Your task to perform on an android device: Empty the shopping cart on newegg.com. Search for "duracell triple a" on newegg.com, select the first entry, and add it to the cart. Image 0: 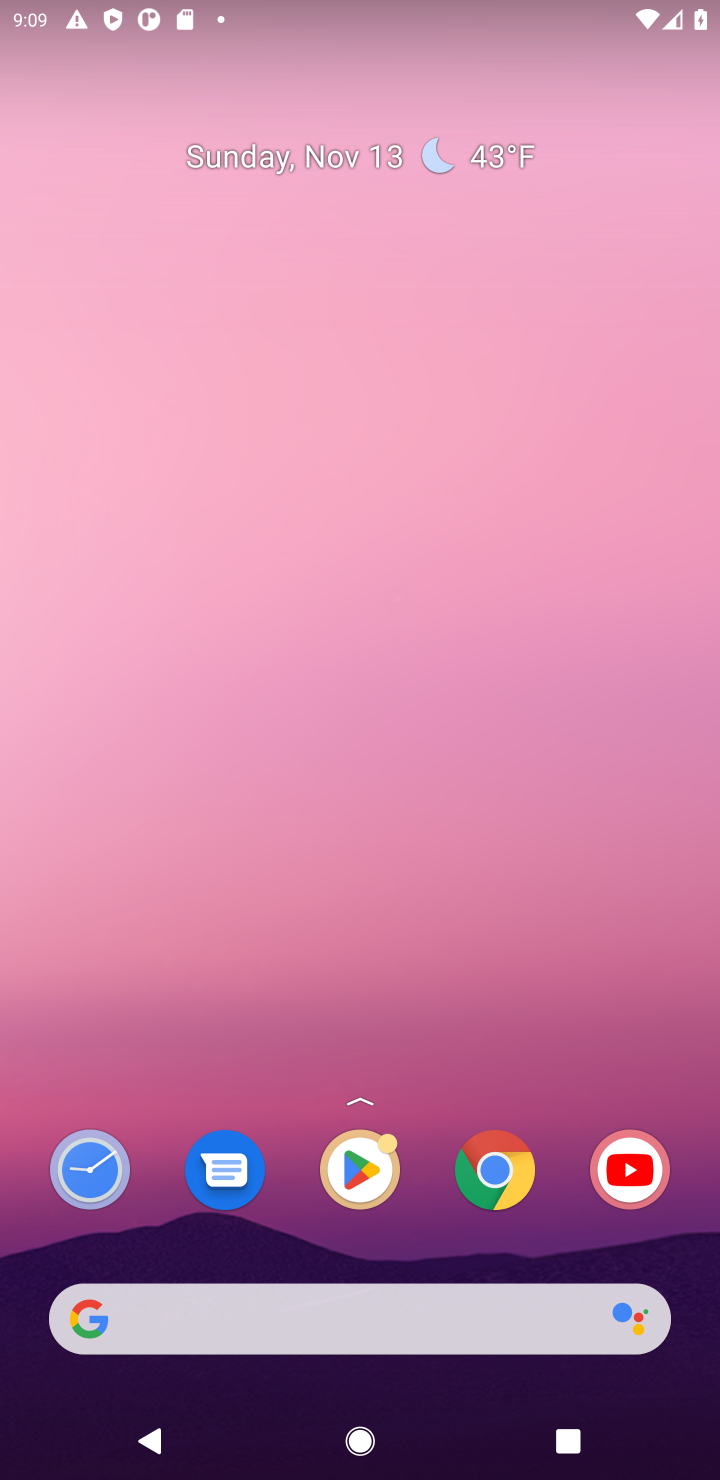
Step 0: drag from (379, 738) to (366, 311)
Your task to perform on an android device: Empty the shopping cart on newegg.com. Search for "duracell triple a" on newegg.com, select the first entry, and add it to the cart. Image 1: 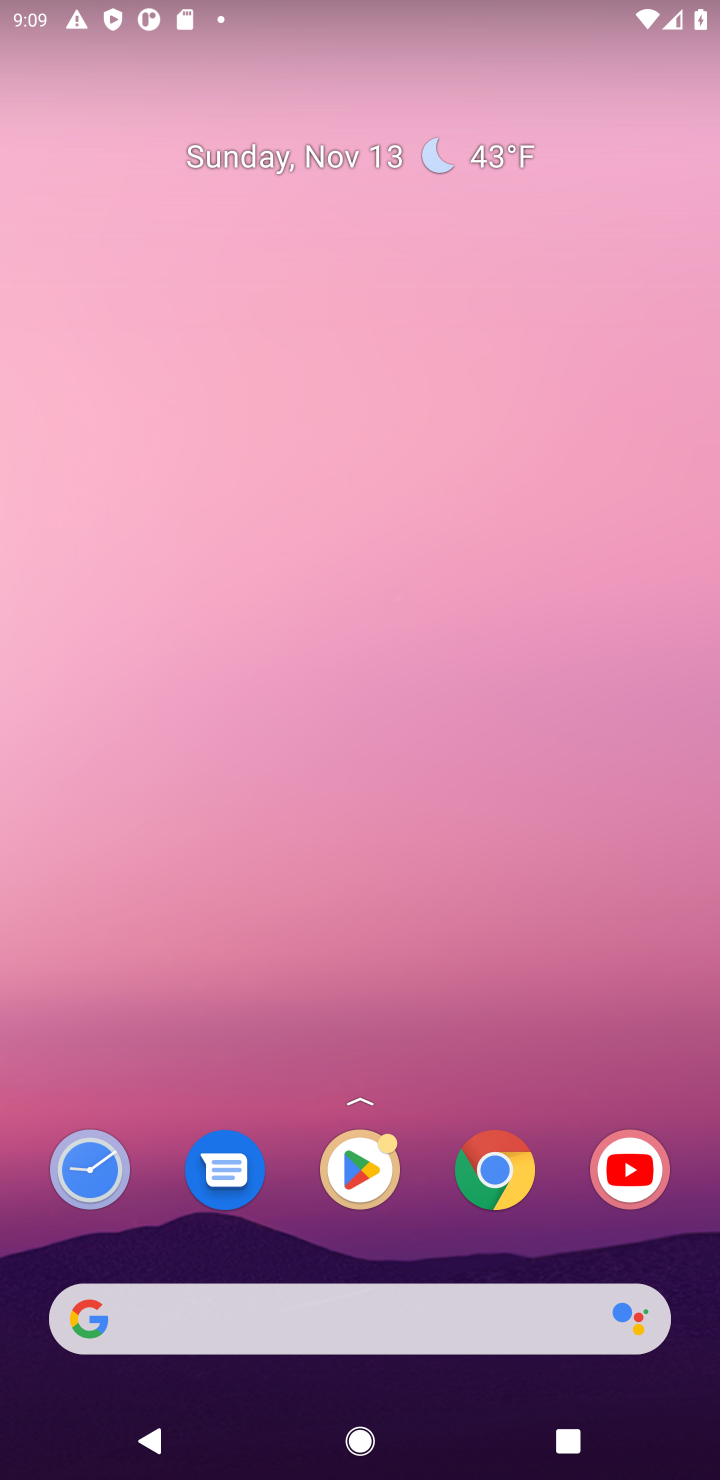
Step 1: drag from (503, 1046) to (636, 255)
Your task to perform on an android device: Empty the shopping cart on newegg.com. Search for "duracell triple a" on newegg.com, select the first entry, and add it to the cart. Image 2: 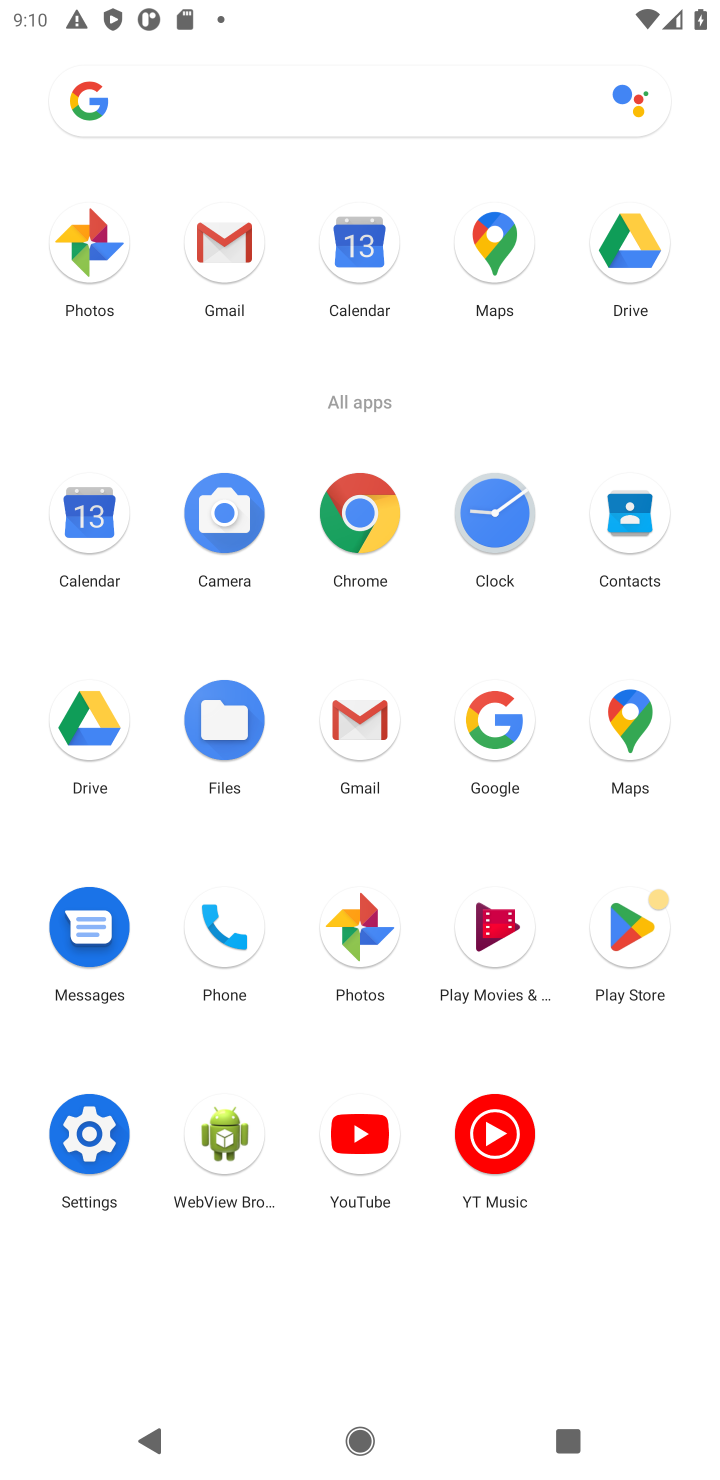
Step 2: click (368, 559)
Your task to perform on an android device: Empty the shopping cart on newegg.com. Search for "duracell triple a" on newegg.com, select the first entry, and add it to the cart. Image 3: 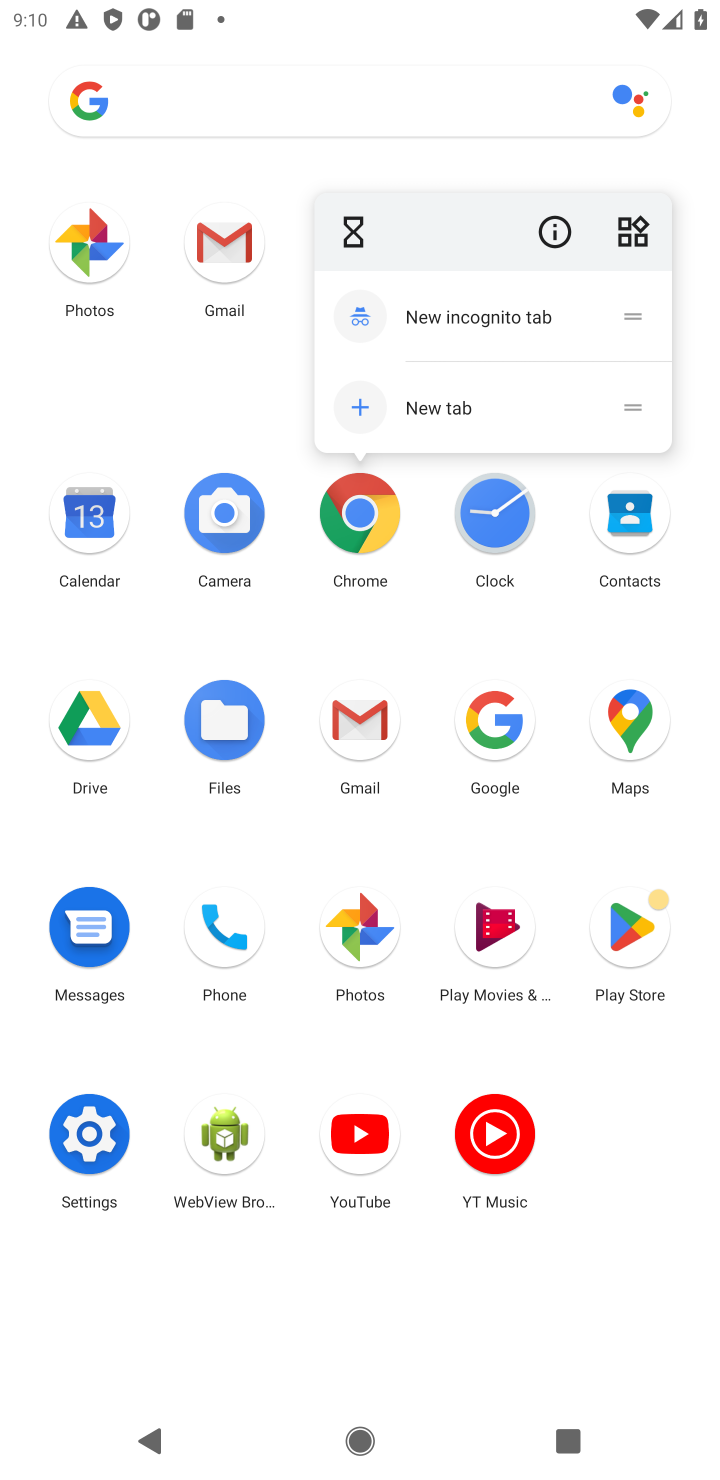
Step 3: click (371, 539)
Your task to perform on an android device: Empty the shopping cart on newegg.com. Search for "duracell triple a" on newegg.com, select the first entry, and add it to the cart. Image 4: 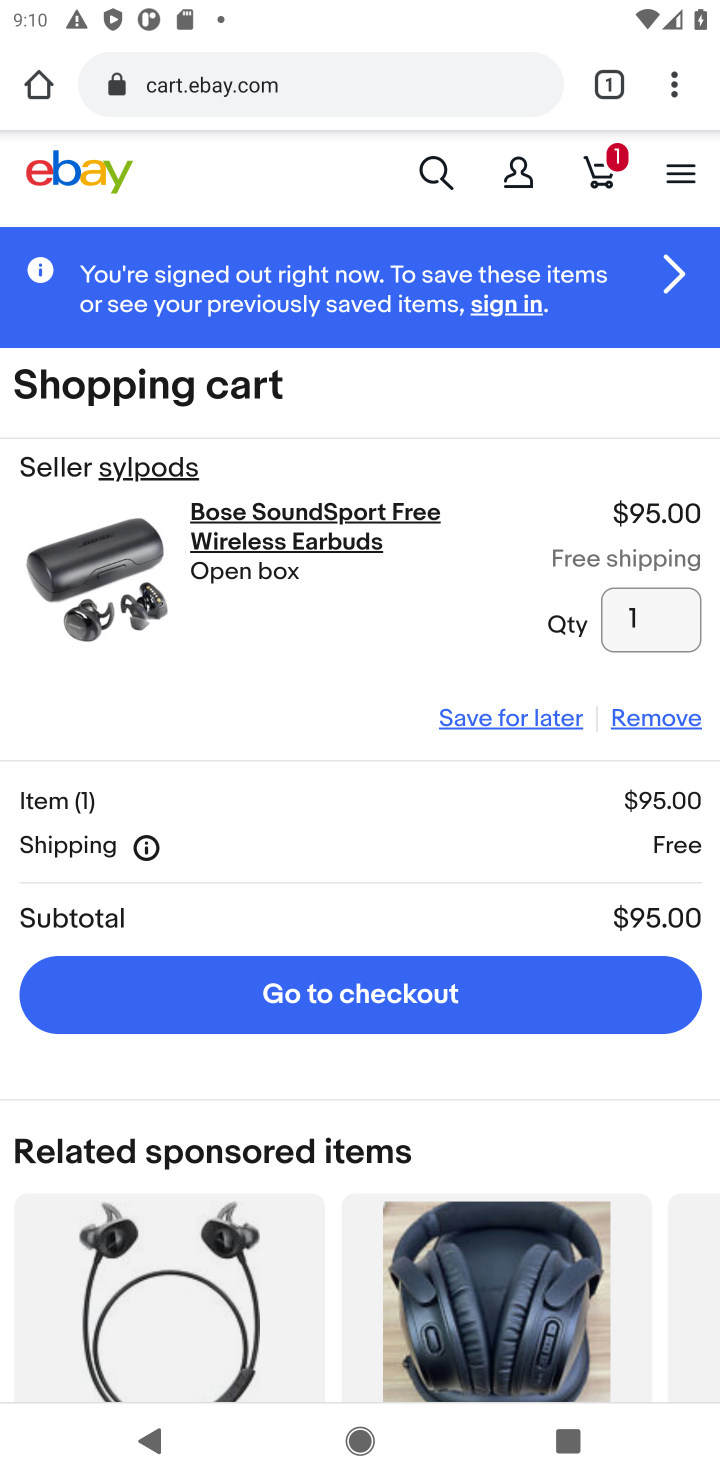
Step 4: click (364, 111)
Your task to perform on an android device: Empty the shopping cart on newegg.com. Search for "duracell triple a" on newegg.com, select the first entry, and add it to the cart. Image 5: 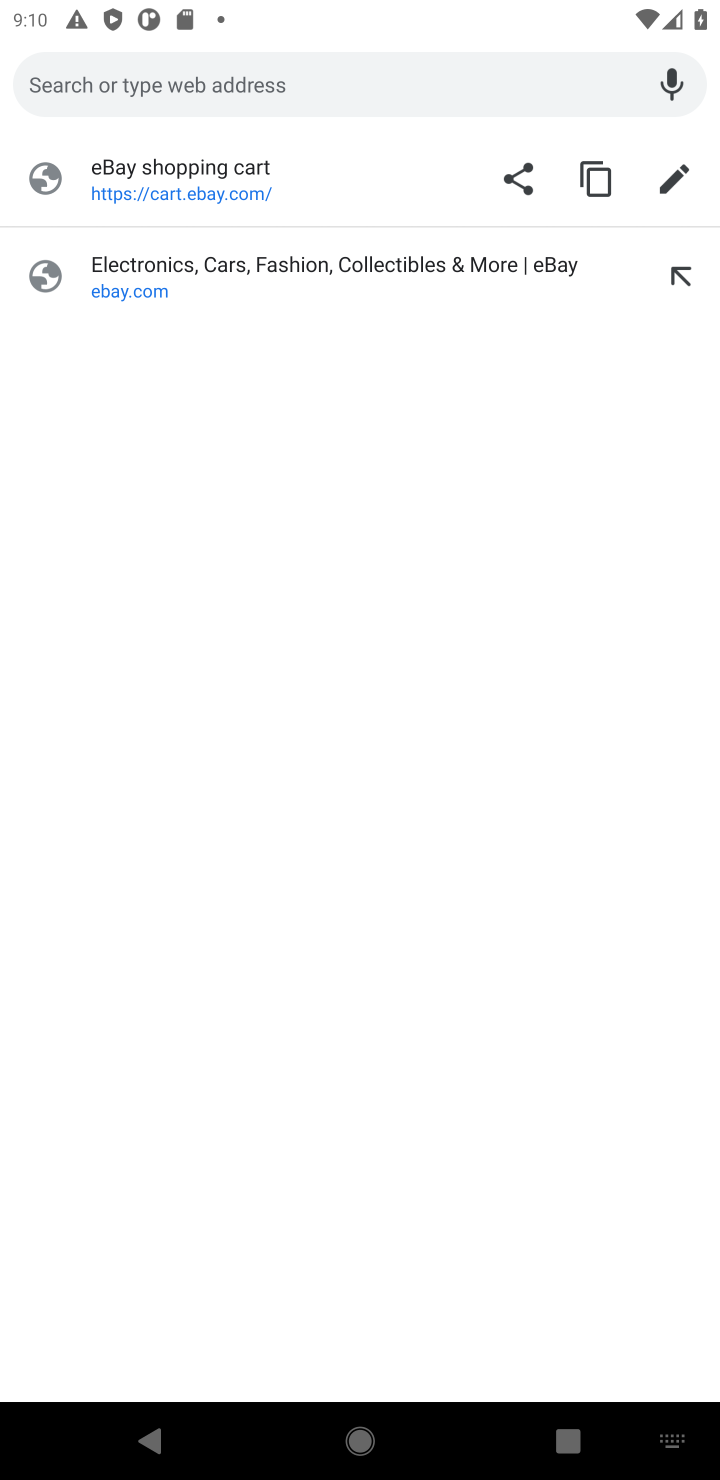
Step 5: type "newegg.com"
Your task to perform on an android device: Empty the shopping cart on newegg.com. Search for "duracell triple a" on newegg.com, select the first entry, and add it to the cart. Image 6: 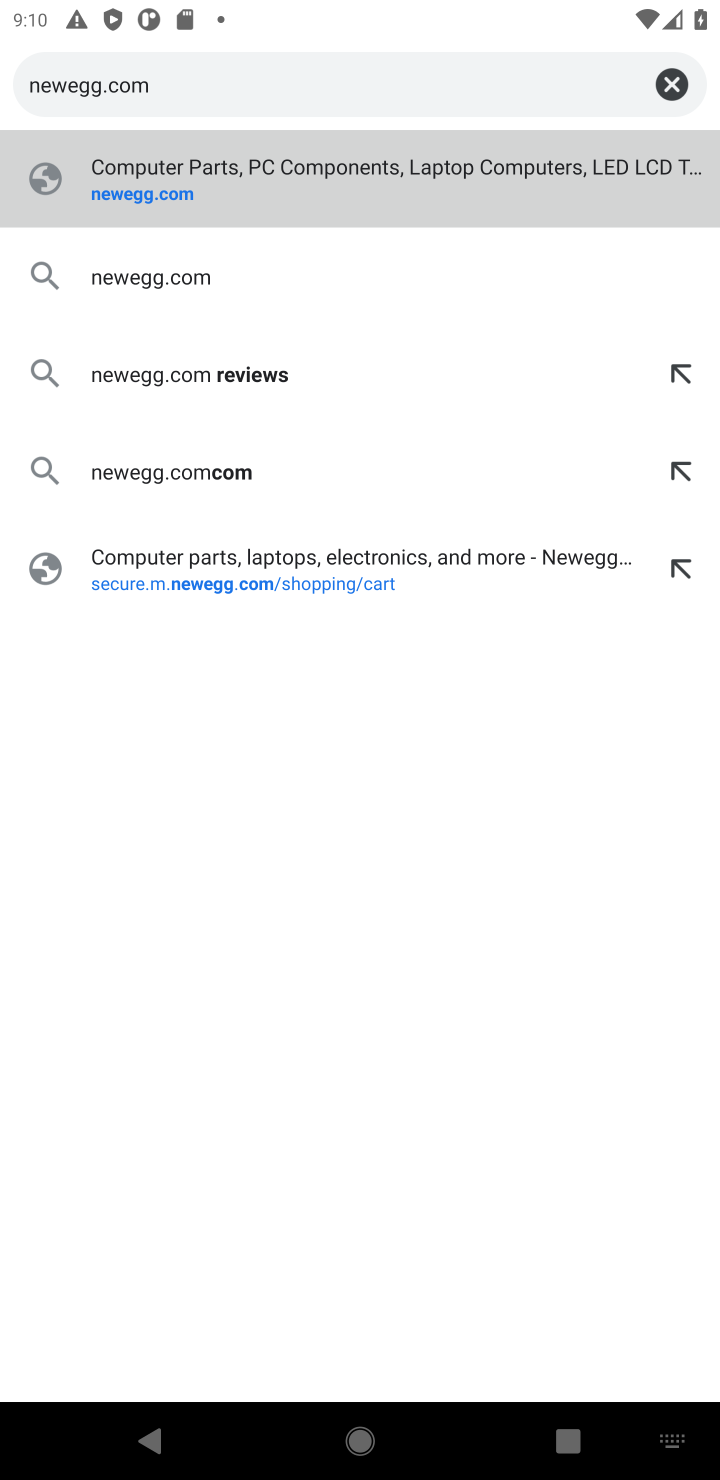
Step 6: press enter
Your task to perform on an android device: Empty the shopping cart on newegg.com. Search for "duracell triple a" on newegg.com, select the first entry, and add it to the cart. Image 7: 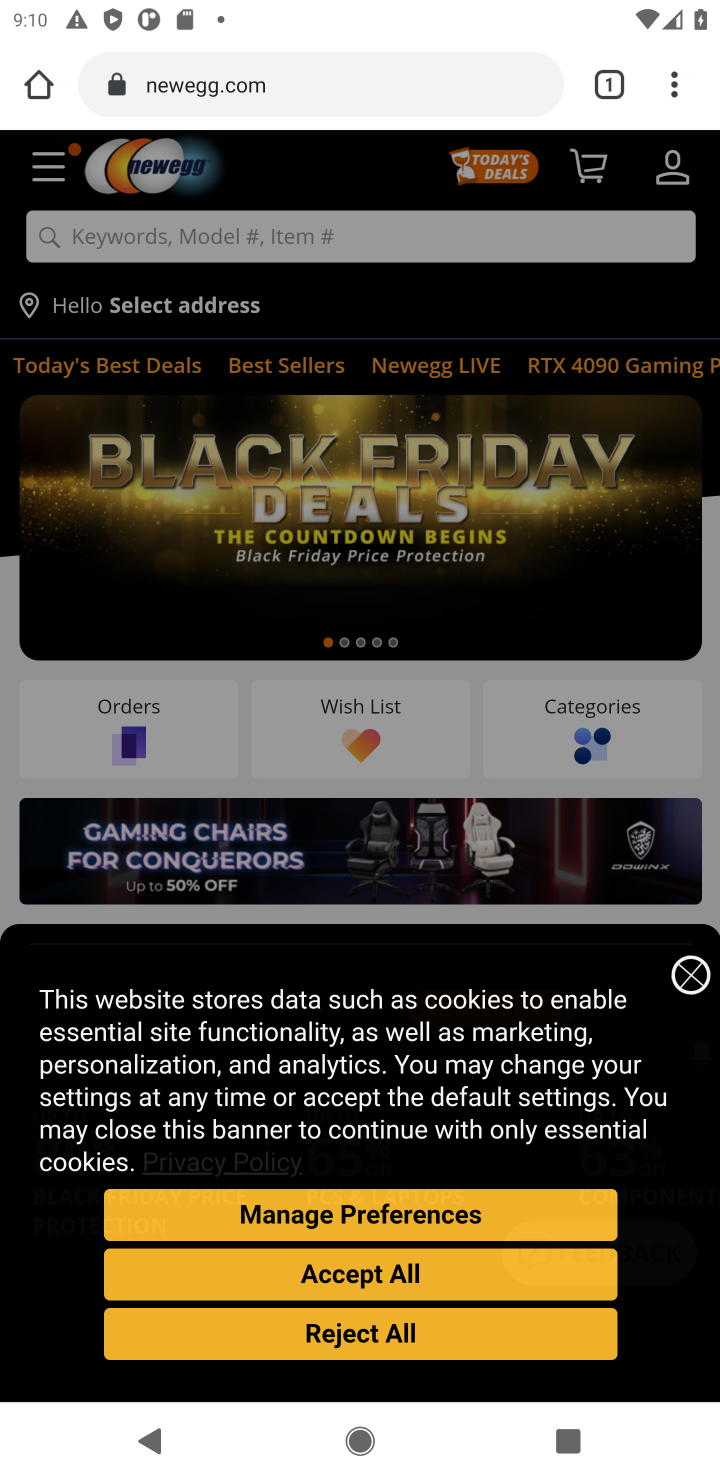
Step 7: click (148, 225)
Your task to perform on an android device: Empty the shopping cart on newegg.com. Search for "duracell triple a" on newegg.com, select the first entry, and add it to the cart. Image 8: 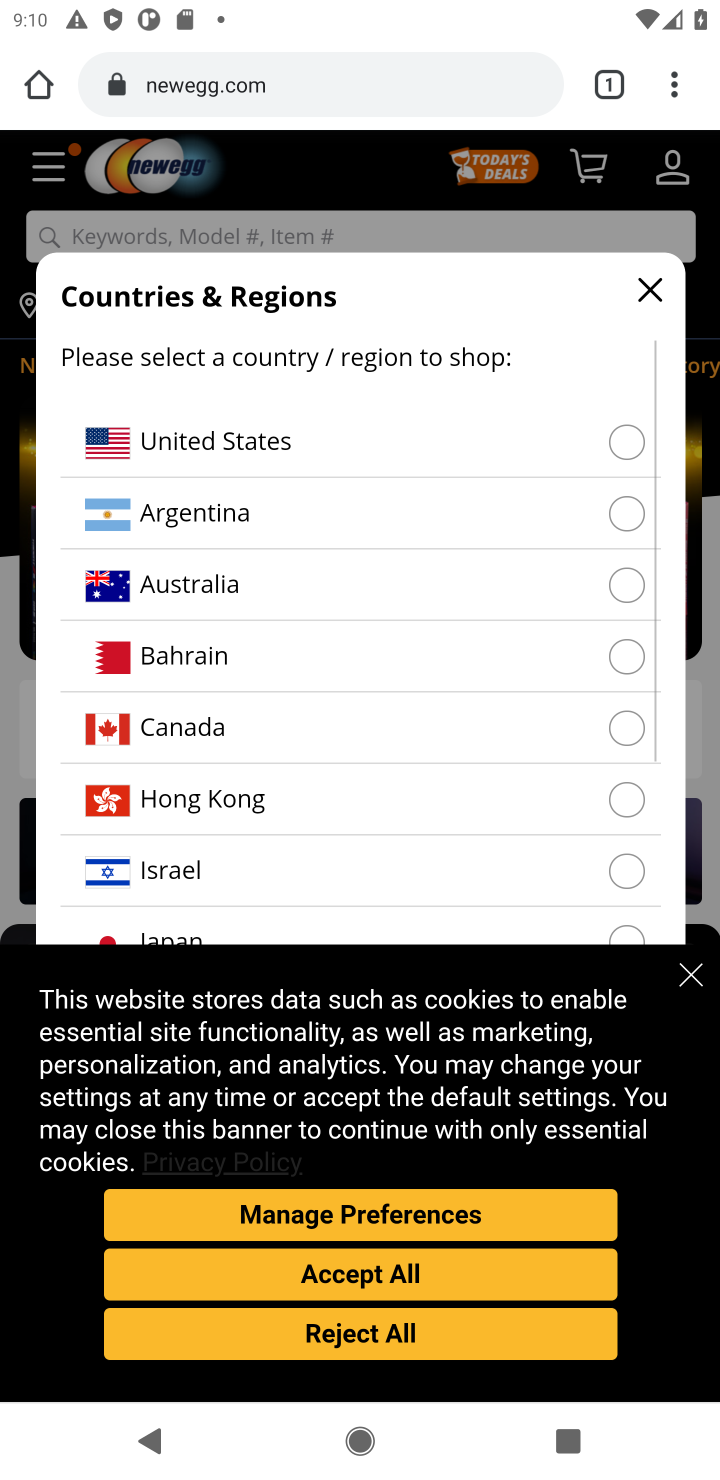
Step 8: type "duracell triple a"
Your task to perform on an android device: Empty the shopping cart on newegg.com. Search for "duracell triple a" on newegg.com, select the first entry, and add it to the cart. Image 9: 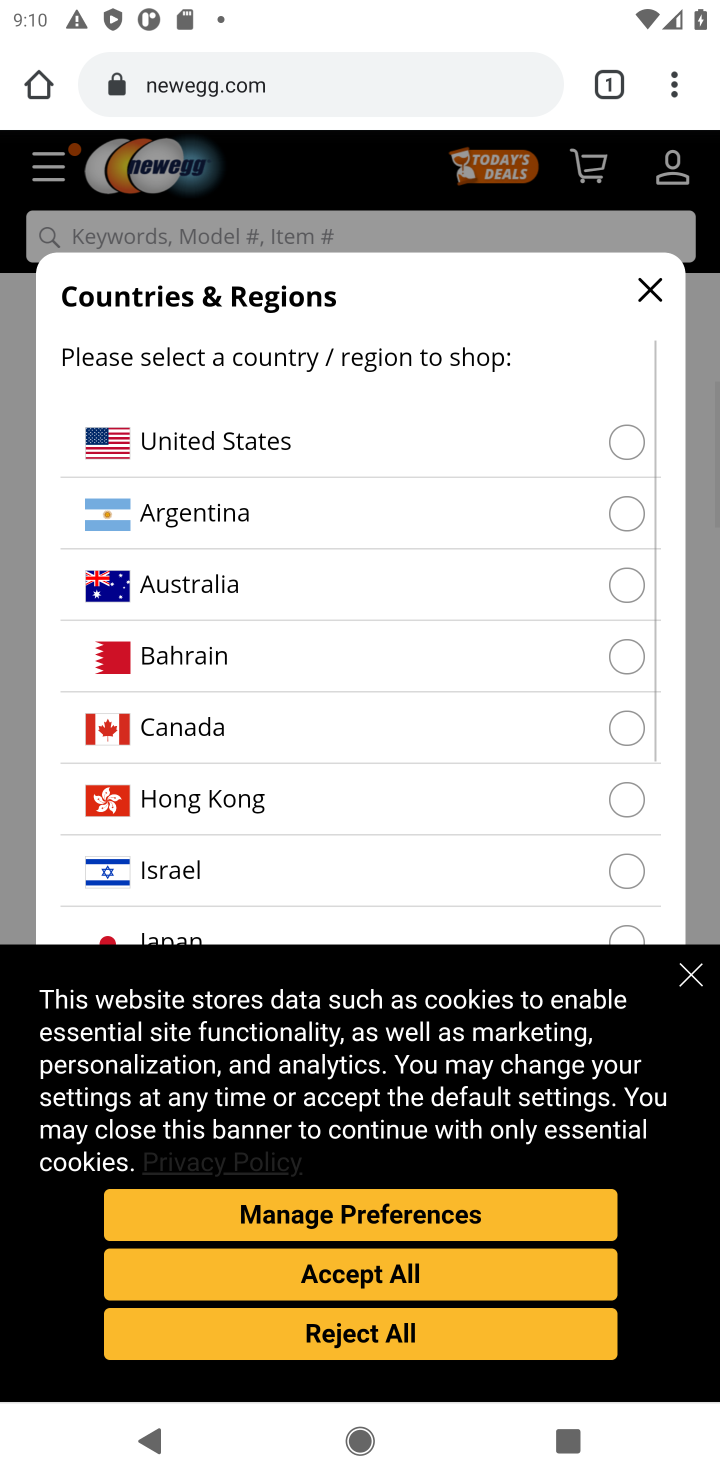
Step 9: press enter
Your task to perform on an android device: Empty the shopping cart on newegg.com. Search for "duracell triple a" on newegg.com, select the first entry, and add it to the cart. Image 10: 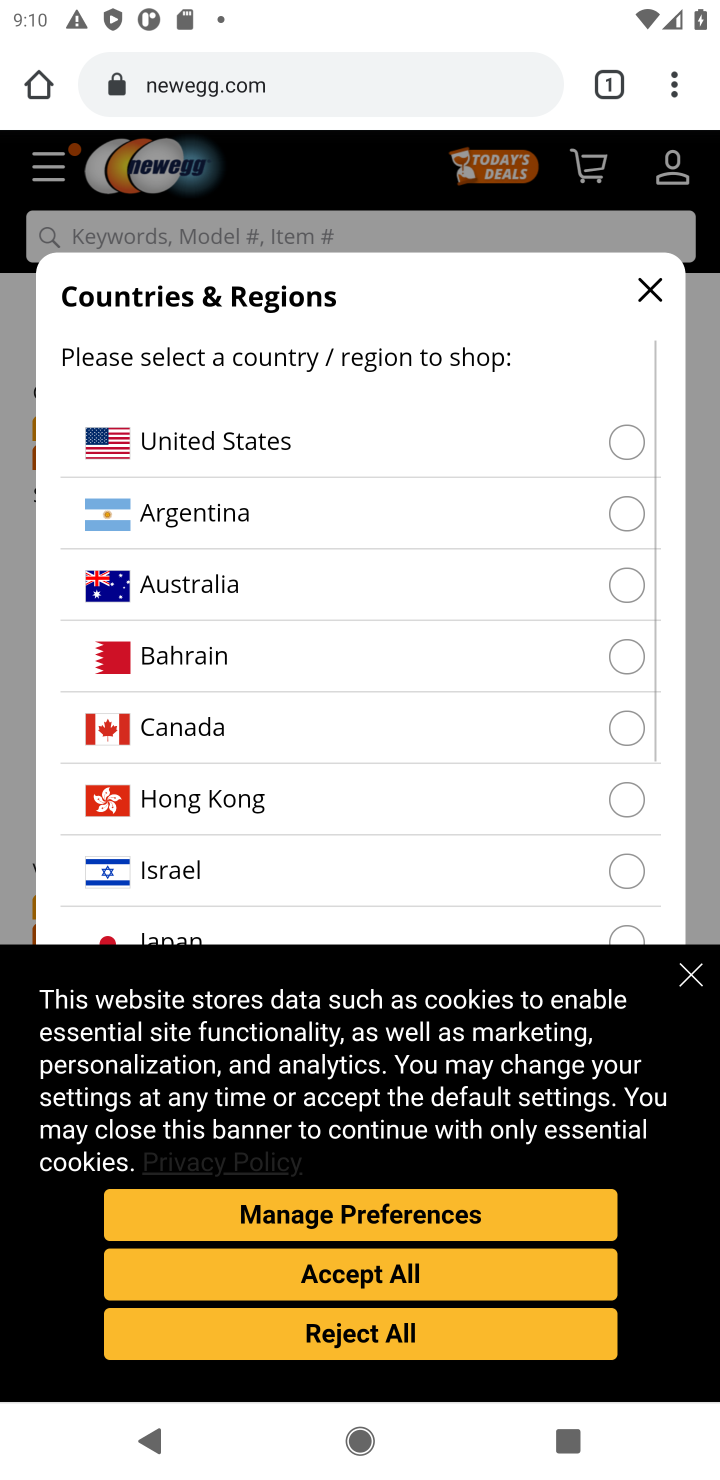
Step 10: click (343, 1276)
Your task to perform on an android device: Empty the shopping cart on newegg.com. Search for "duracell triple a" on newegg.com, select the first entry, and add it to the cart. Image 11: 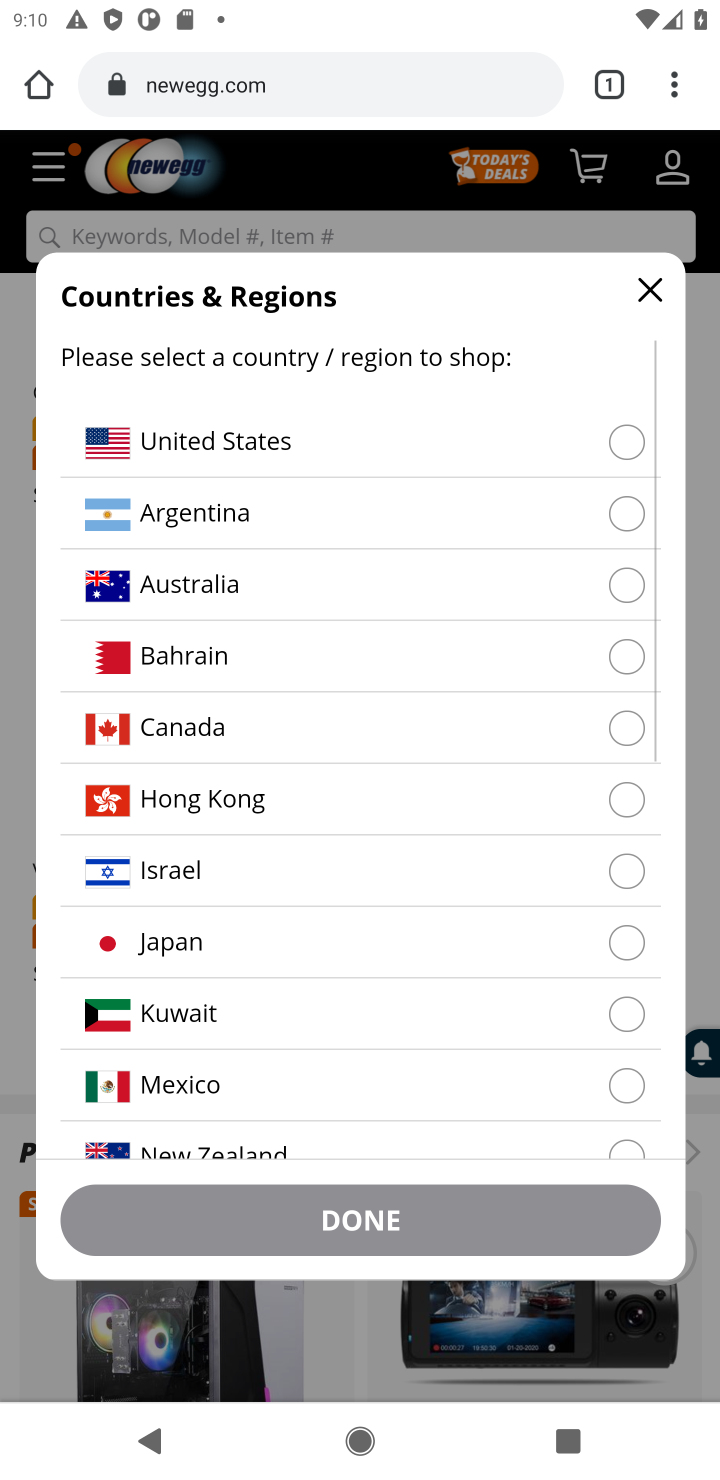
Step 11: click (302, 424)
Your task to perform on an android device: Empty the shopping cart on newegg.com. Search for "duracell triple a" on newegg.com, select the first entry, and add it to the cart. Image 12: 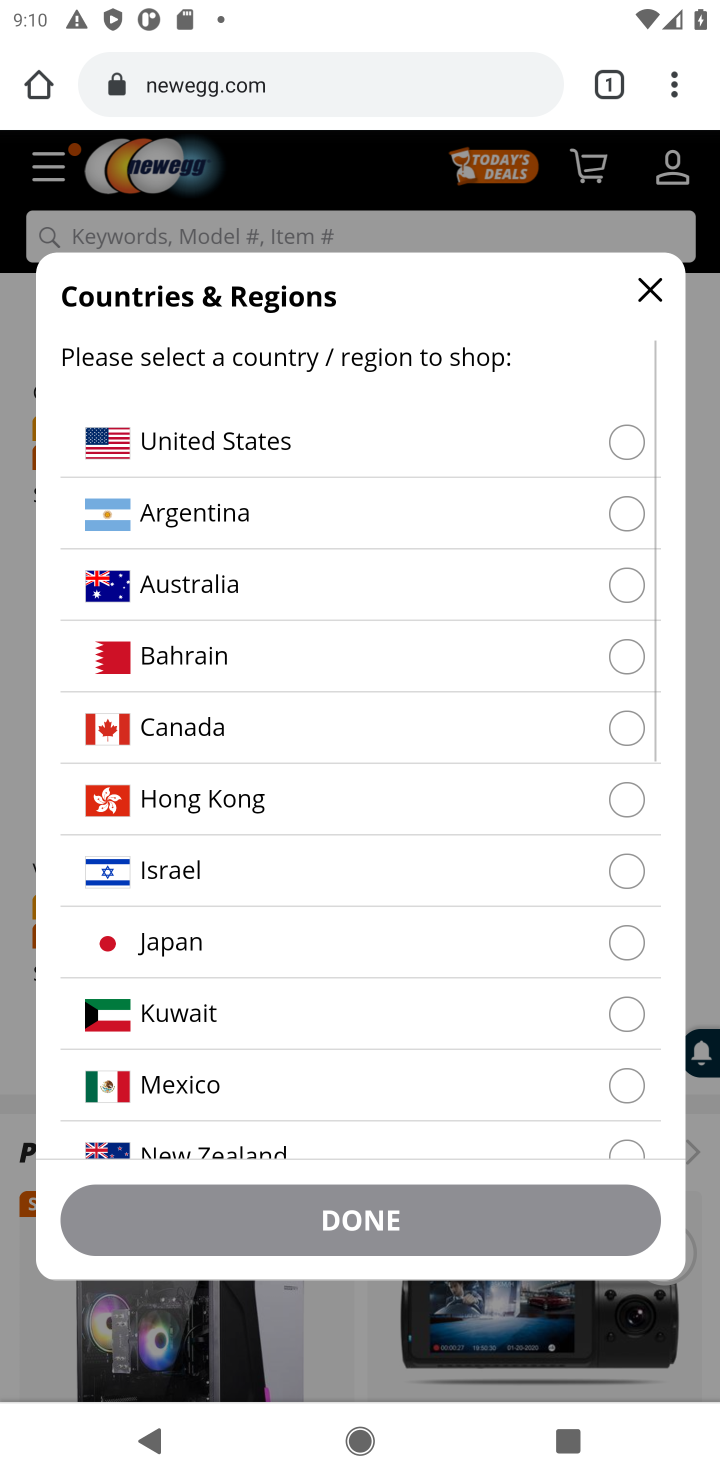
Step 12: click (292, 452)
Your task to perform on an android device: Empty the shopping cart on newegg.com. Search for "duracell triple a" on newegg.com, select the first entry, and add it to the cart. Image 13: 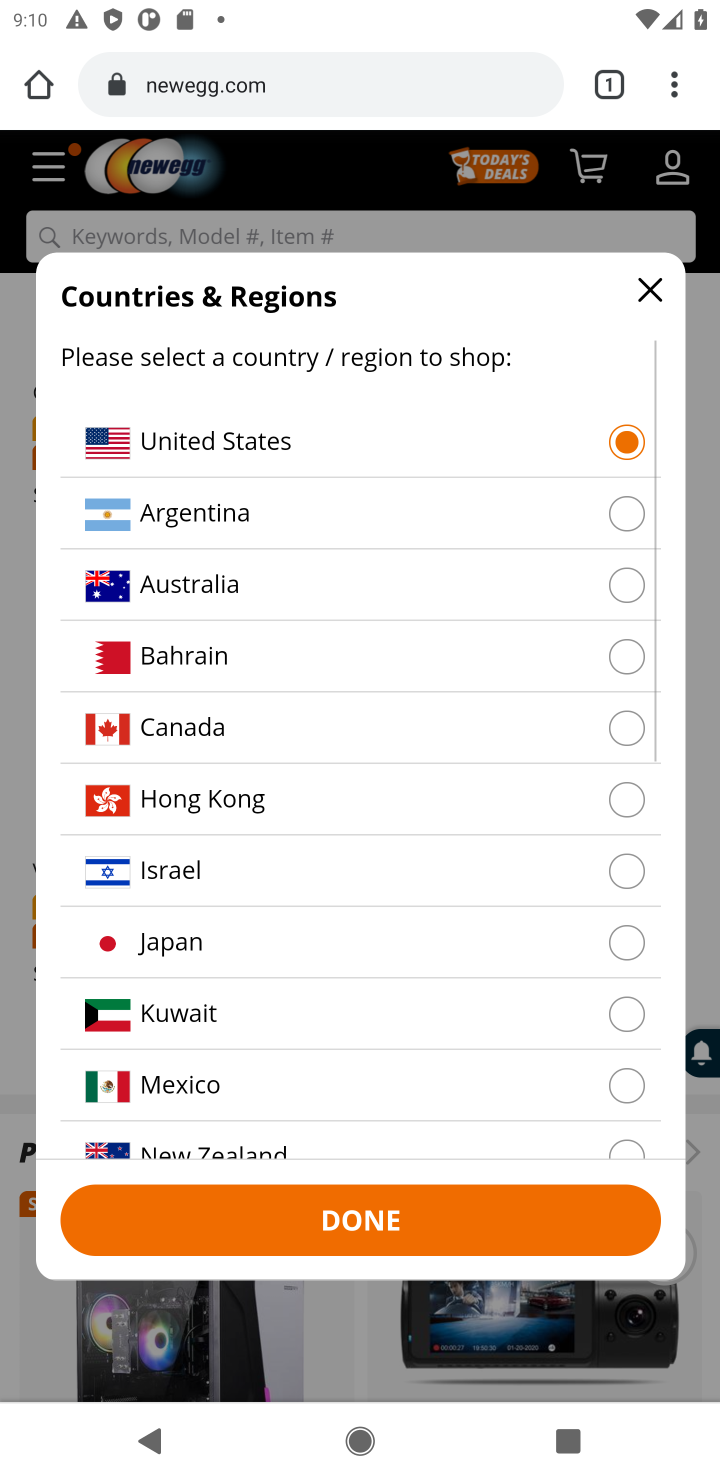
Step 13: click (336, 456)
Your task to perform on an android device: Empty the shopping cart on newegg.com. Search for "duracell triple a" on newegg.com, select the first entry, and add it to the cart. Image 14: 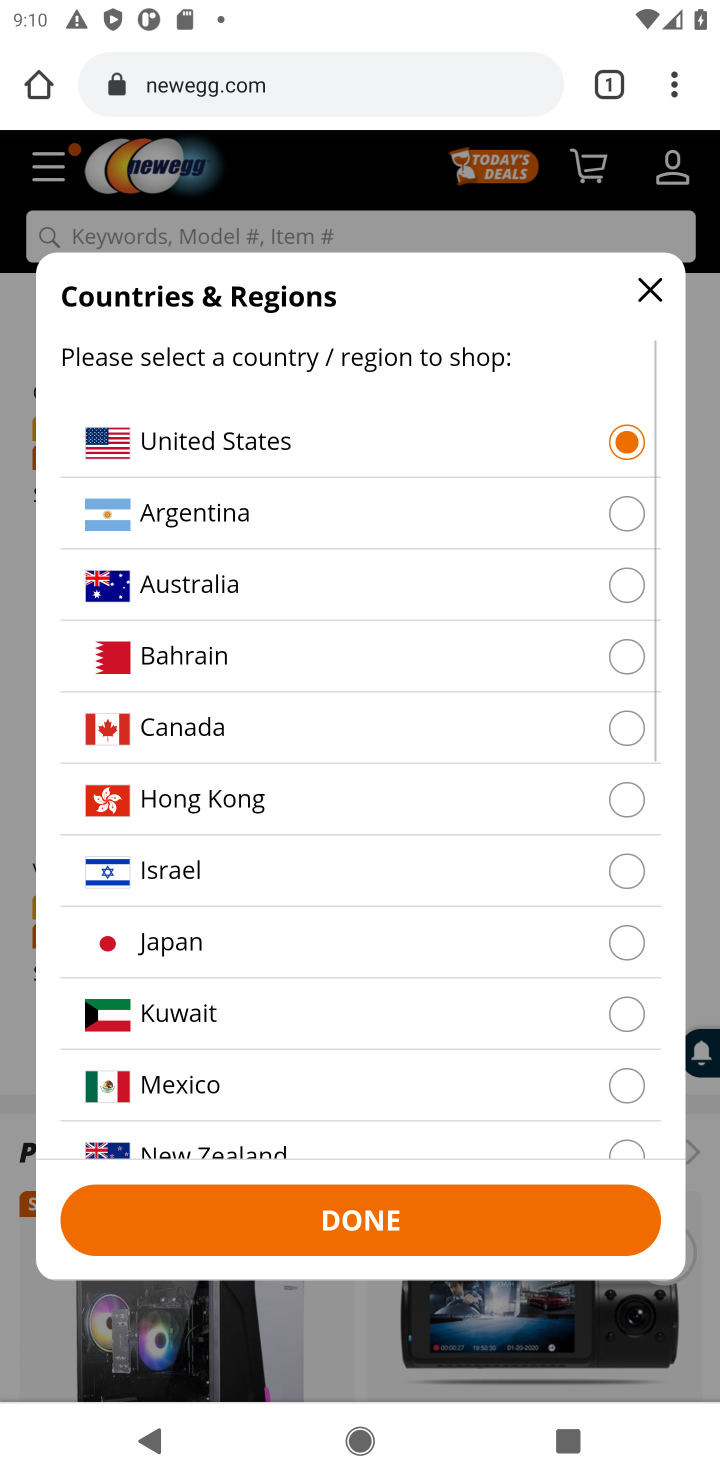
Step 14: click (315, 1225)
Your task to perform on an android device: Empty the shopping cart on newegg.com. Search for "duracell triple a" on newegg.com, select the first entry, and add it to the cart. Image 15: 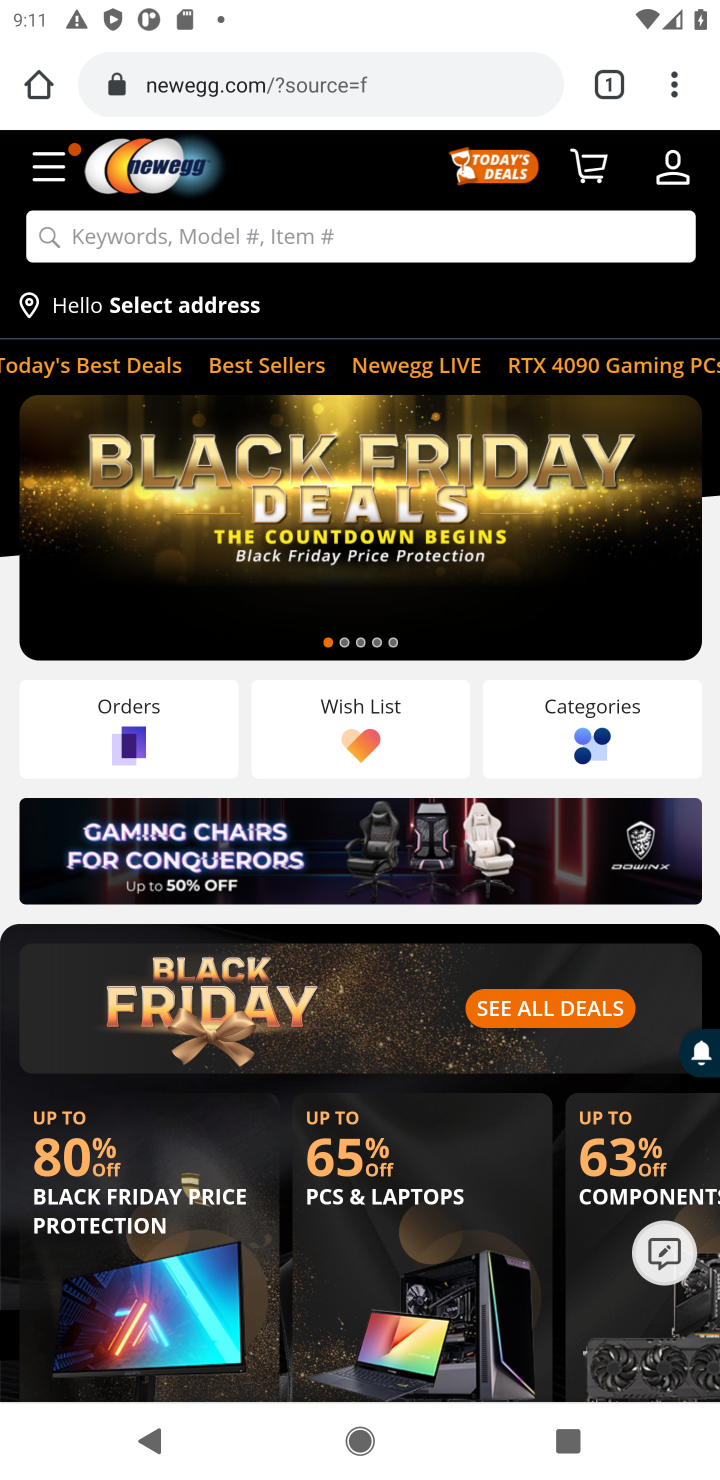
Step 15: click (297, 218)
Your task to perform on an android device: Empty the shopping cart on newegg.com. Search for "duracell triple a" on newegg.com, select the first entry, and add it to the cart. Image 16: 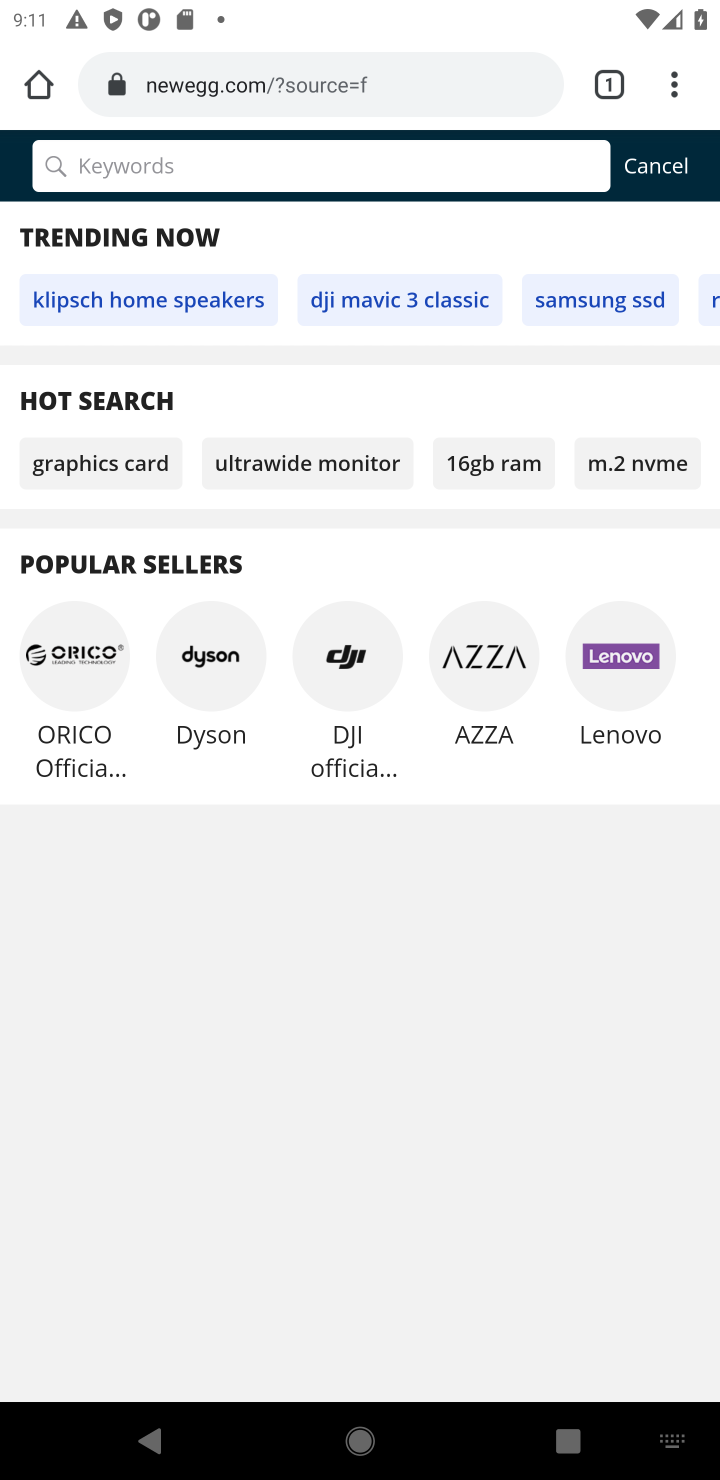
Step 16: type "duracell triple a"
Your task to perform on an android device: Empty the shopping cart on newegg.com. Search for "duracell triple a" on newegg.com, select the first entry, and add it to the cart. Image 17: 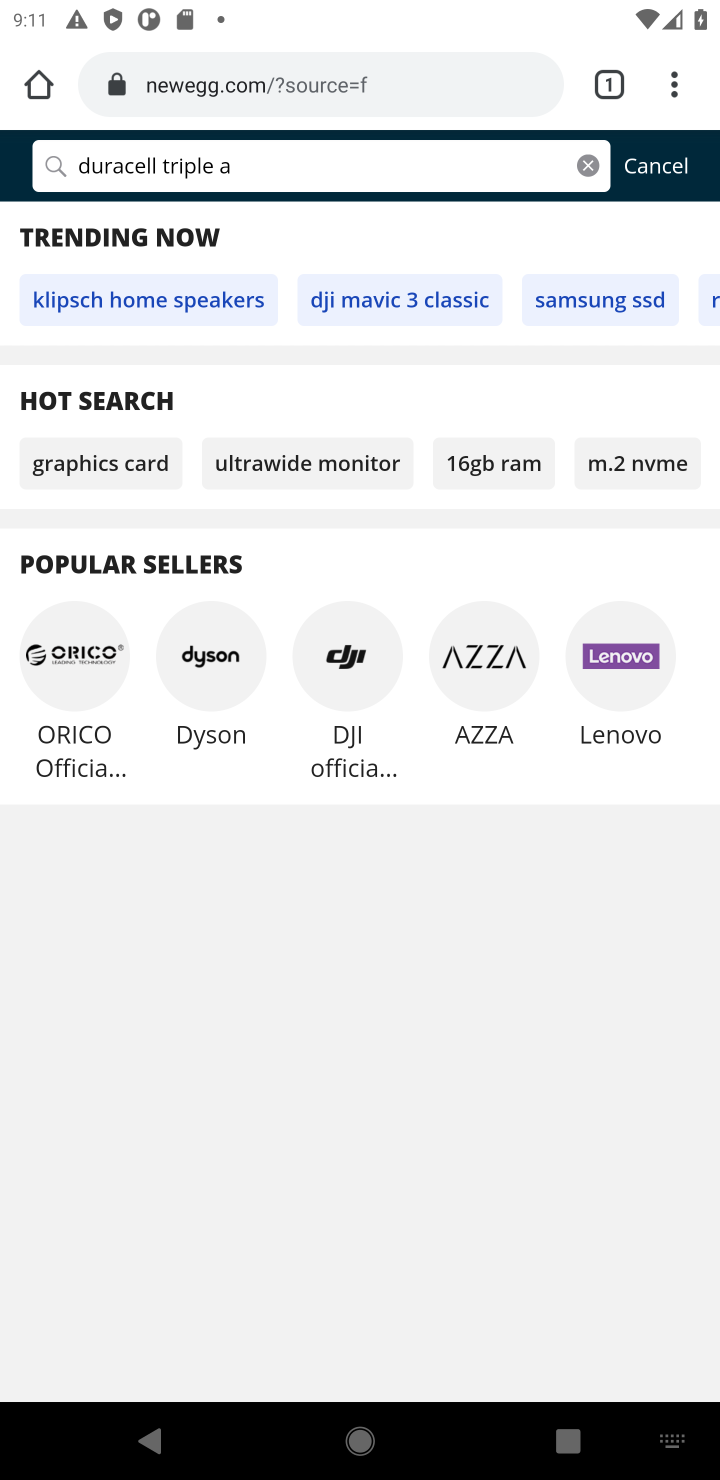
Step 17: press enter
Your task to perform on an android device: Empty the shopping cart on newegg.com. Search for "duracell triple a" on newegg.com, select the first entry, and add it to the cart. Image 18: 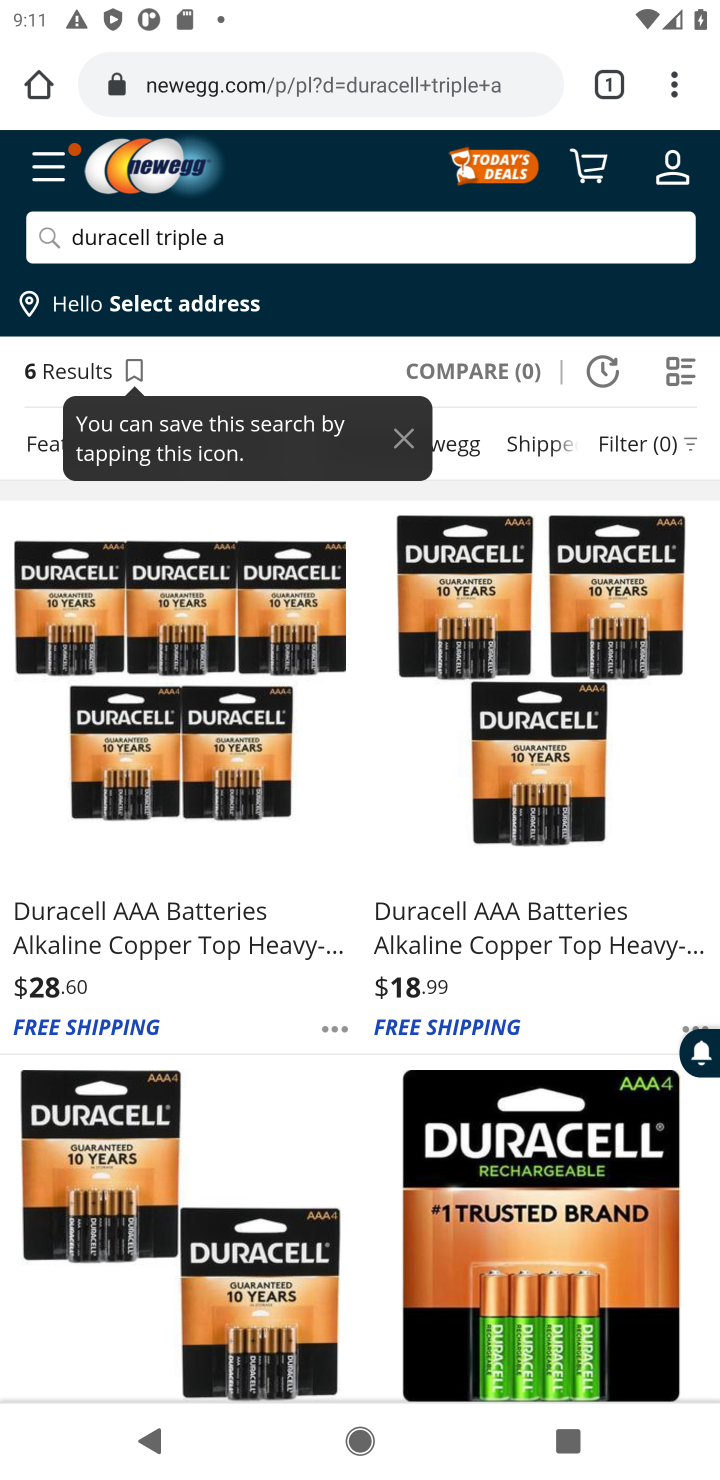
Step 18: click (215, 949)
Your task to perform on an android device: Empty the shopping cart on newegg.com. Search for "duracell triple a" on newegg.com, select the first entry, and add it to the cart. Image 19: 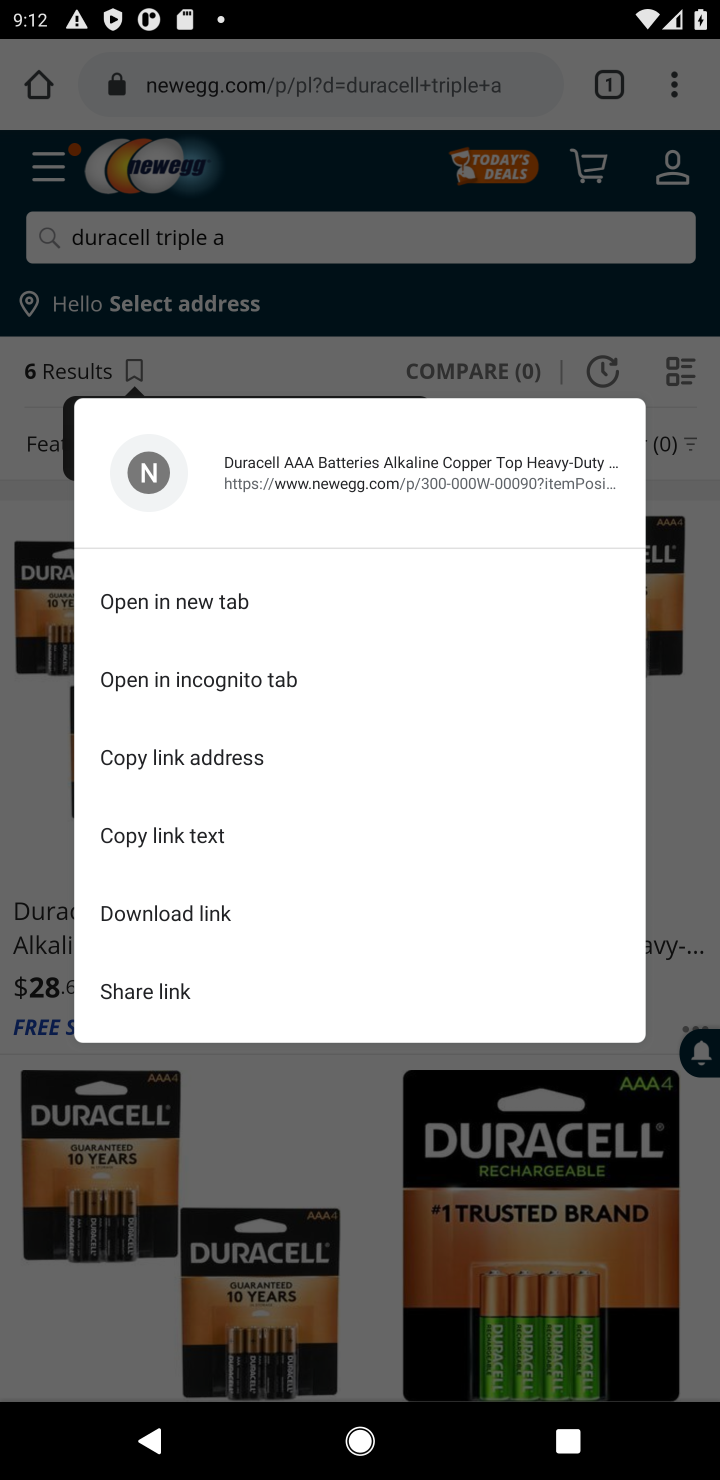
Step 19: click (216, 589)
Your task to perform on an android device: Empty the shopping cart on newegg.com. Search for "duracell triple a" on newegg.com, select the first entry, and add it to the cart. Image 20: 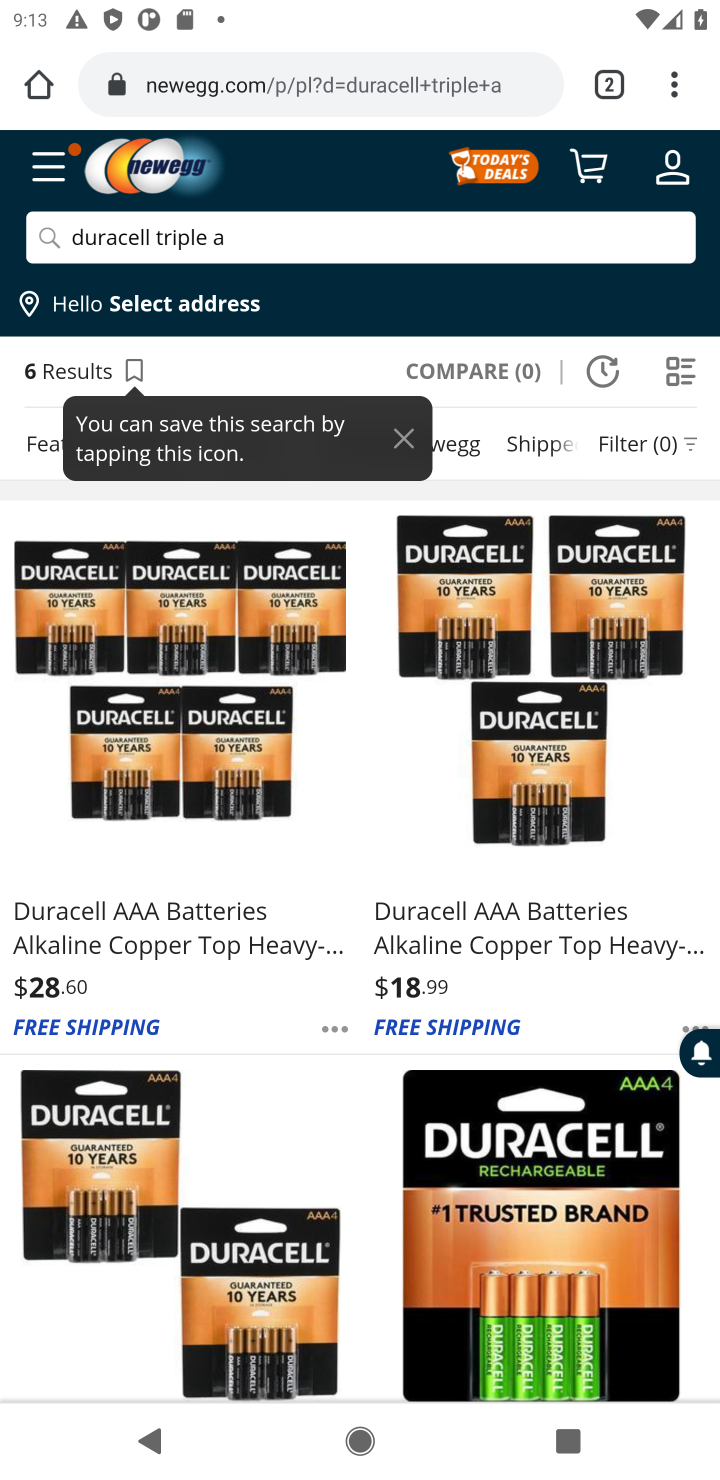
Step 20: click (143, 887)
Your task to perform on an android device: Empty the shopping cart on newegg.com. Search for "duracell triple a" on newegg.com, select the first entry, and add it to the cart. Image 21: 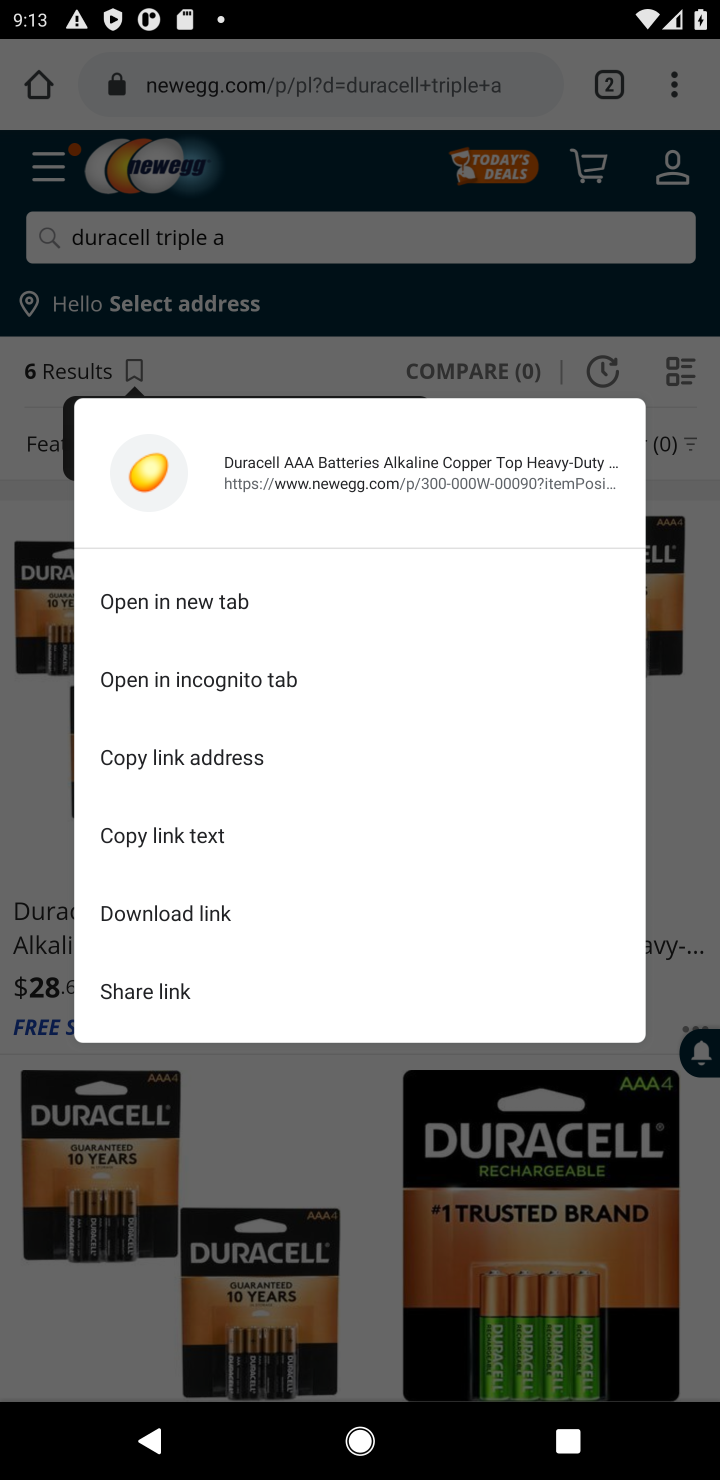
Step 21: click (34, 954)
Your task to perform on an android device: Empty the shopping cart on newegg.com. Search for "duracell triple a" on newegg.com, select the first entry, and add it to the cart. Image 22: 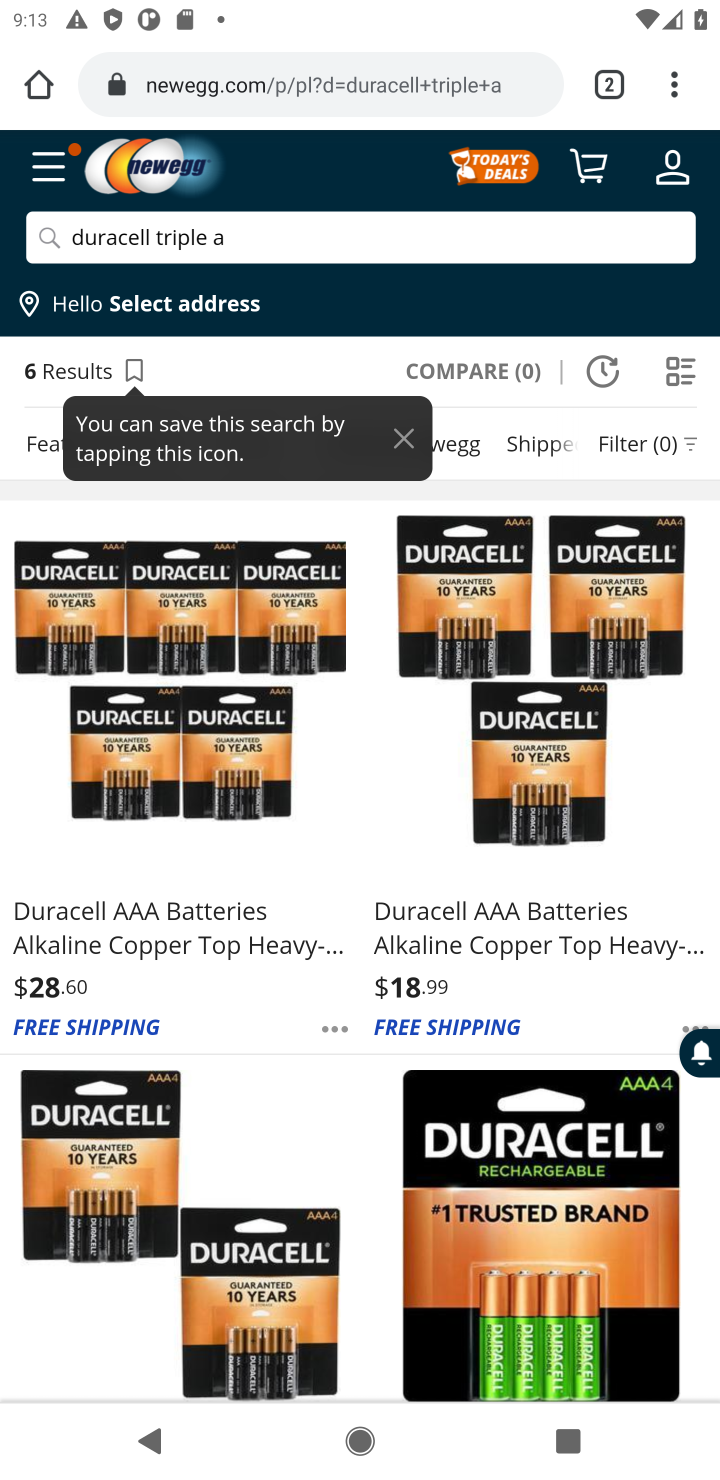
Step 22: click (48, 920)
Your task to perform on an android device: Empty the shopping cart on newegg.com. Search for "duracell triple a" on newegg.com, select the first entry, and add it to the cart. Image 23: 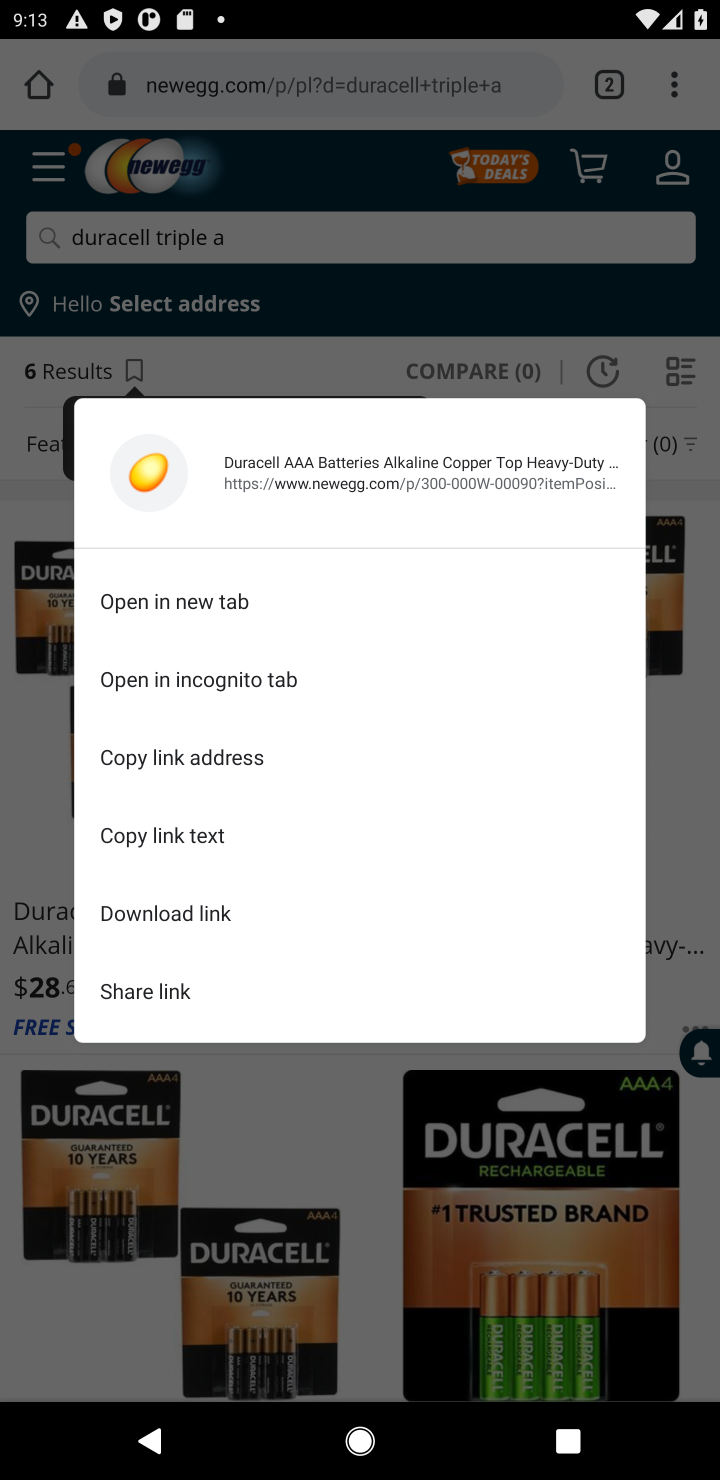
Step 23: click (214, 615)
Your task to perform on an android device: Empty the shopping cart on newegg.com. Search for "duracell triple a" on newegg.com, select the first entry, and add it to the cart. Image 24: 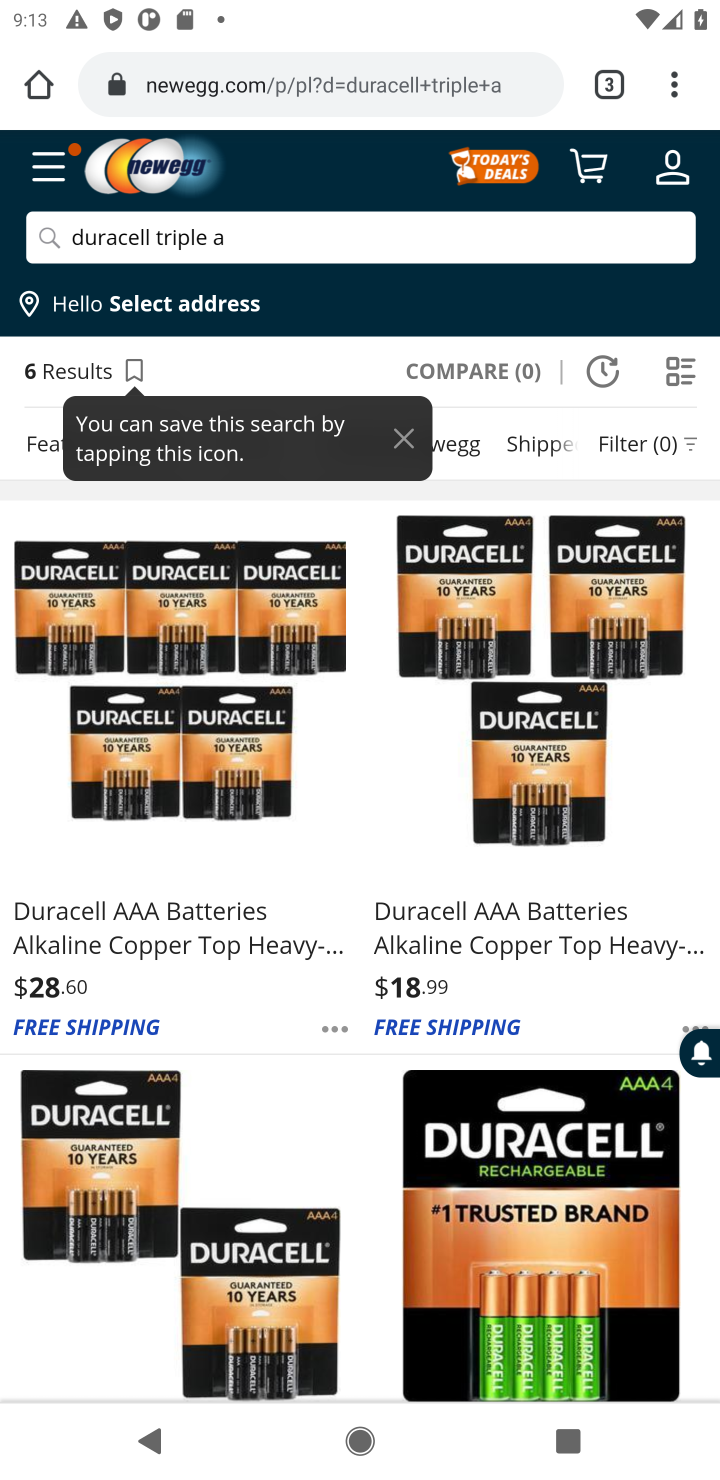
Step 24: task complete